Your task to perform on an android device: Empty the shopping cart on newegg.com. Search for "acer predator" on newegg.com, select the first entry, add it to the cart, then select checkout. Image 0: 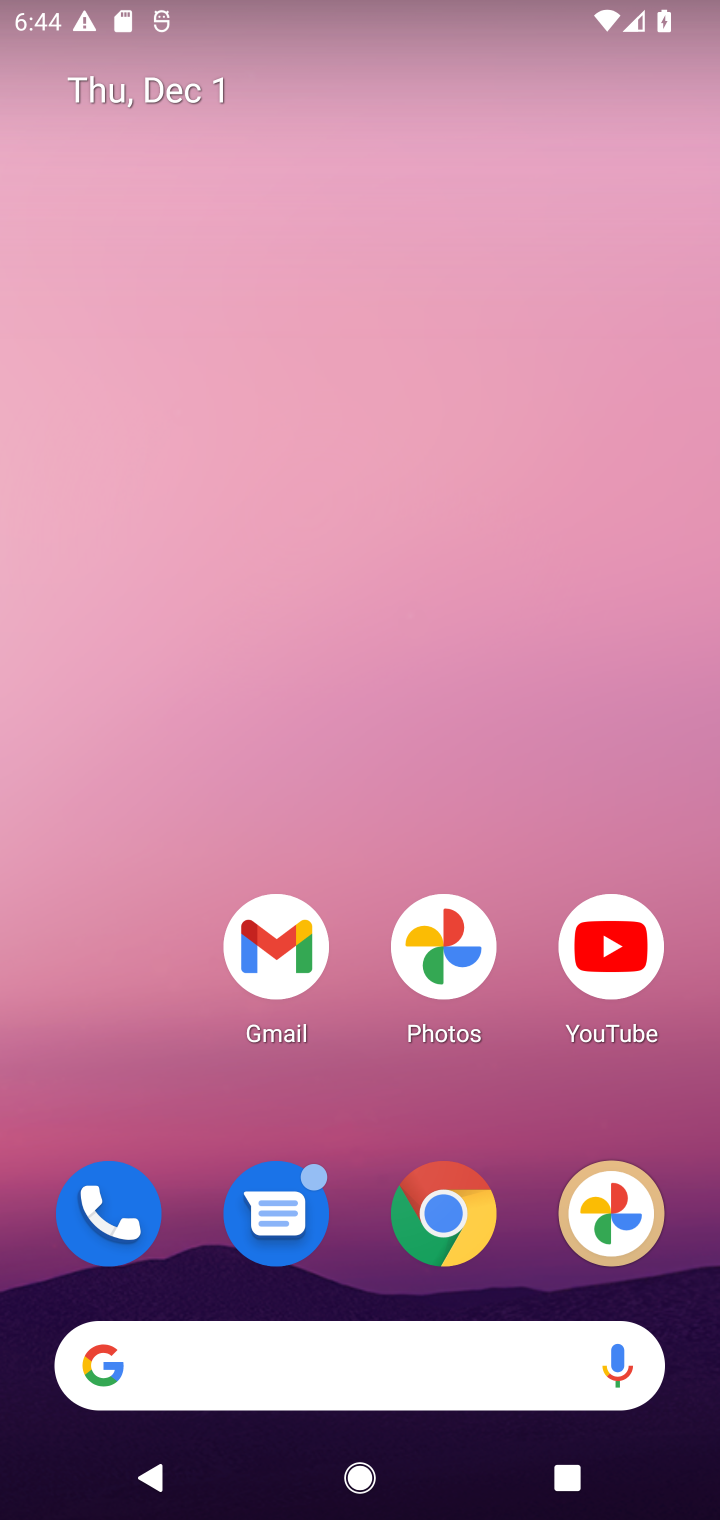
Step 0: click (368, 1366)
Your task to perform on an android device: Empty the shopping cart on newegg.com. Search for "acer predator" on newegg.com, select the first entry, add it to the cart, then select checkout. Image 1: 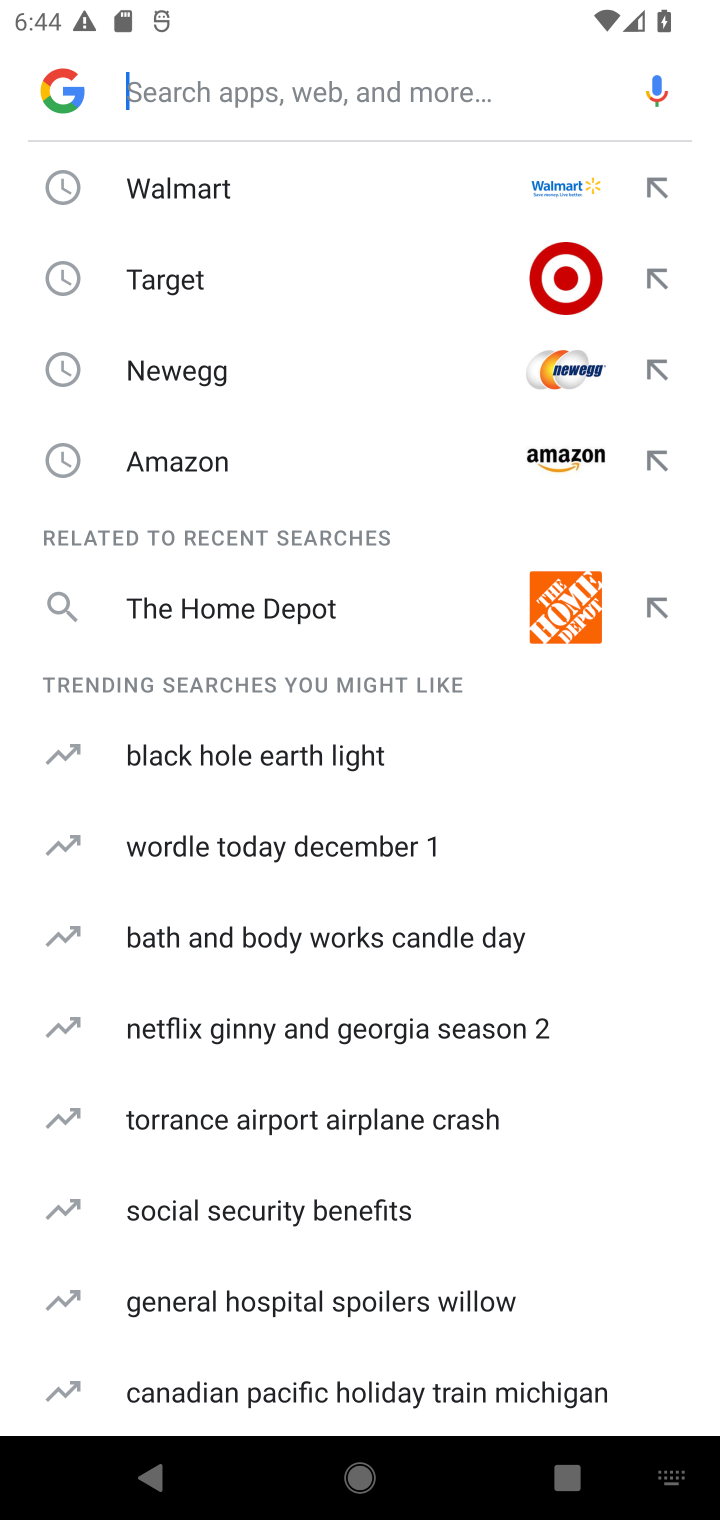
Step 1: click (184, 402)
Your task to perform on an android device: Empty the shopping cart on newegg.com. Search for "acer predator" on newegg.com, select the first entry, add it to the cart, then select checkout. Image 2: 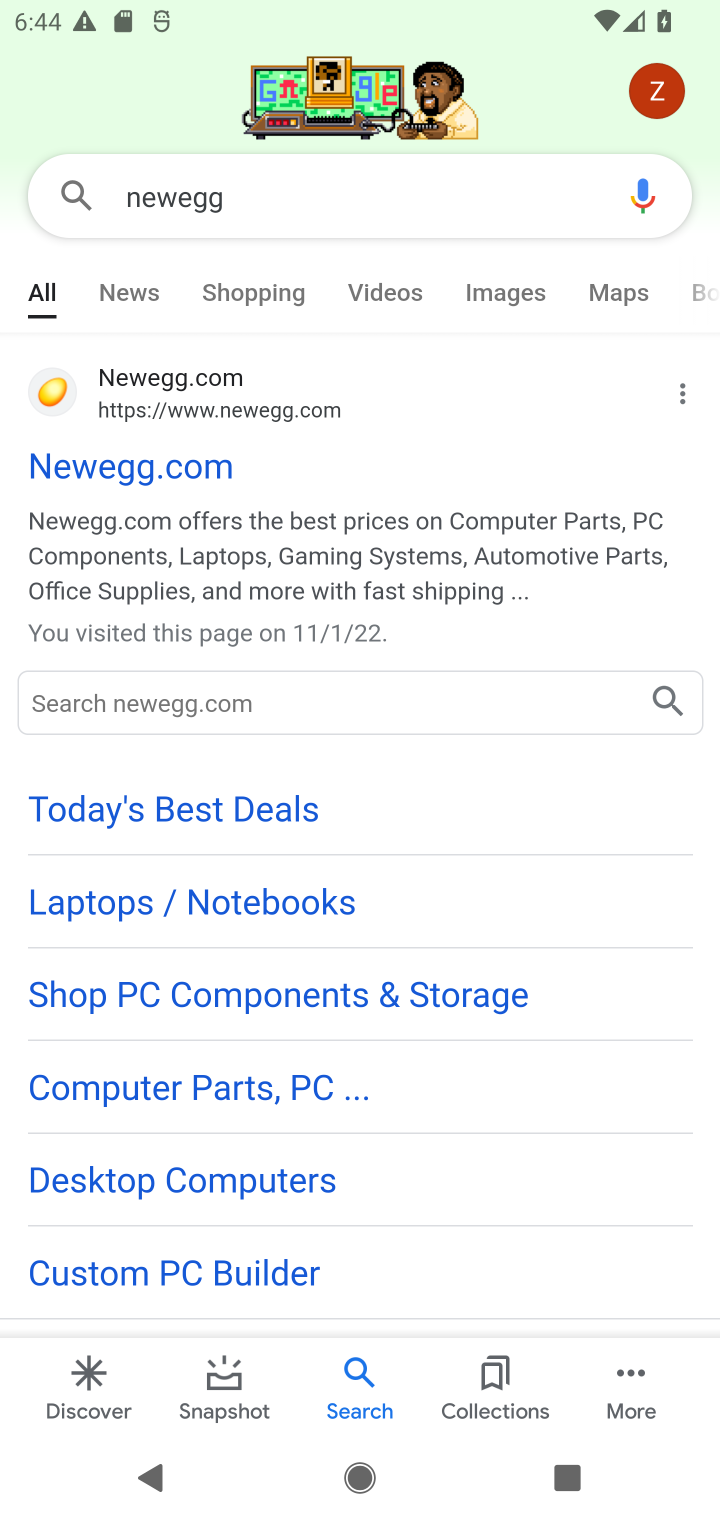
Step 2: click (163, 453)
Your task to perform on an android device: Empty the shopping cart on newegg.com. Search for "acer predator" on newegg.com, select the first entry, add it to the cart, then select checkout. Image 3: 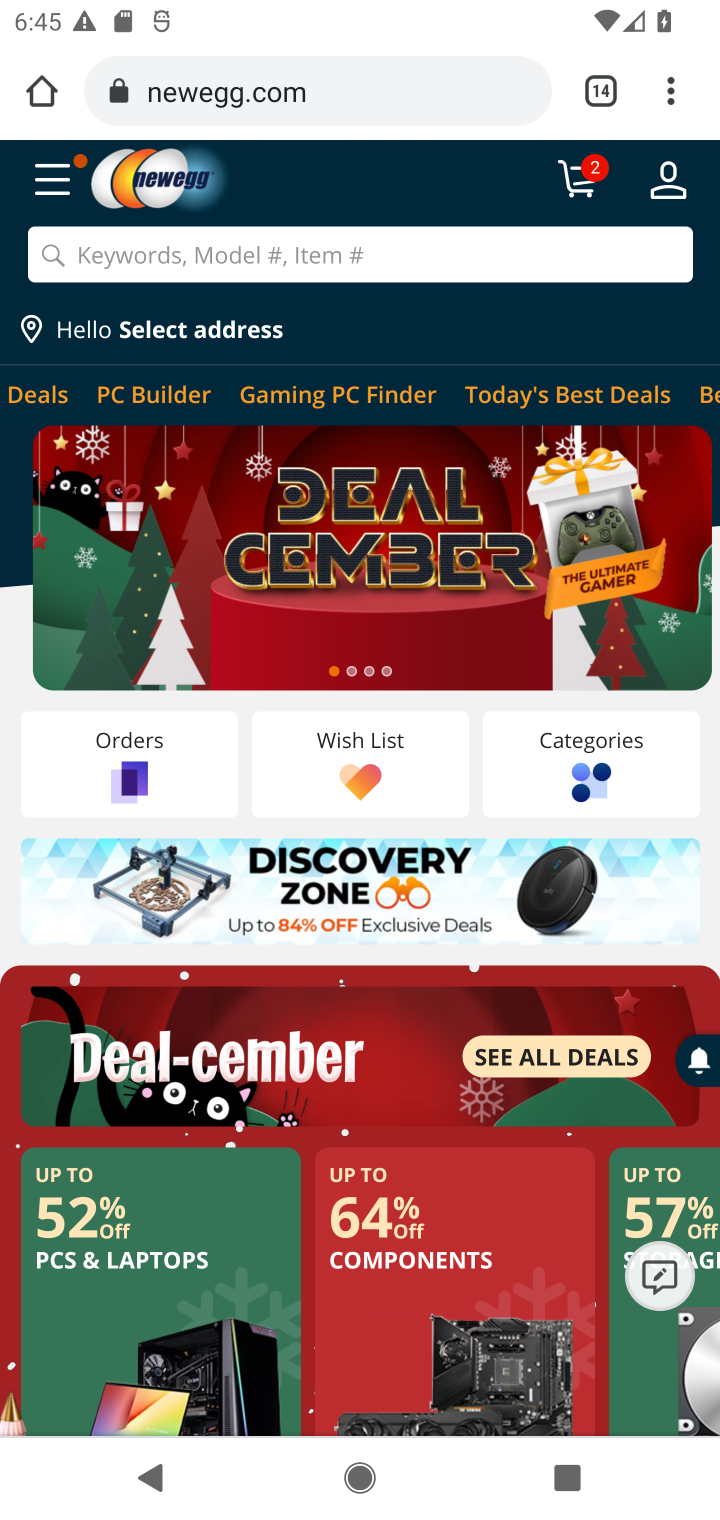
Step 3: click (307, 237)
Your task to perform on an android device: Empty the shopping cart on newegg.com. Search for "acer predator" on newegg.com, select the first entry, add it to the cart, then select checkout. Image 4: 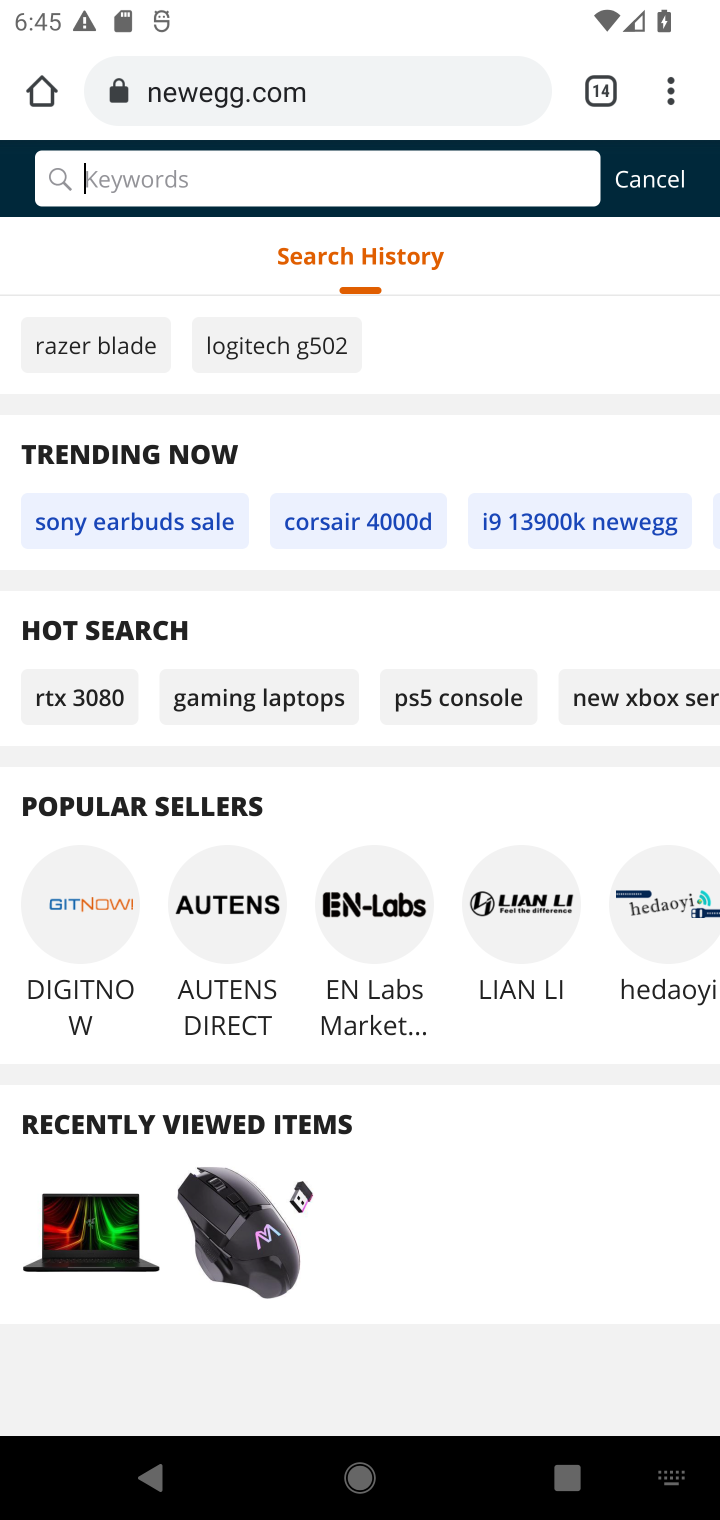
Step 4: type "acer predator"
Your task to perform on an android device: Empty the shopping cart on newegg.com. Search for "acer predator" on newegg.com, select the first entry, add it to the cart, then select checkout. Image 5: 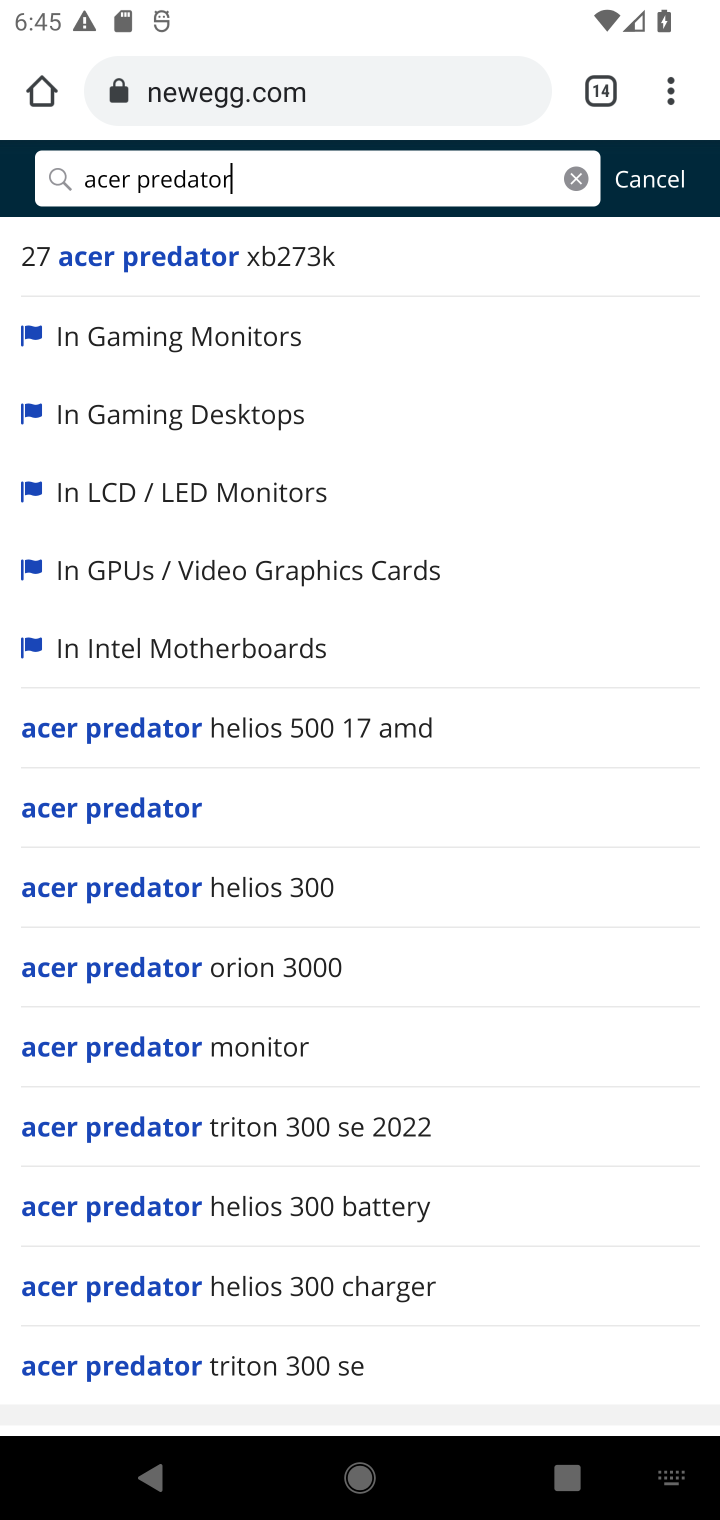
Step 5: click (278, 703)
Your task to perform on an android device: Empty the shopping cart on newegg.com. Search for "acer predator" on newegg.com, select the first entry, add it to the cart, then select checkout. Image 6: 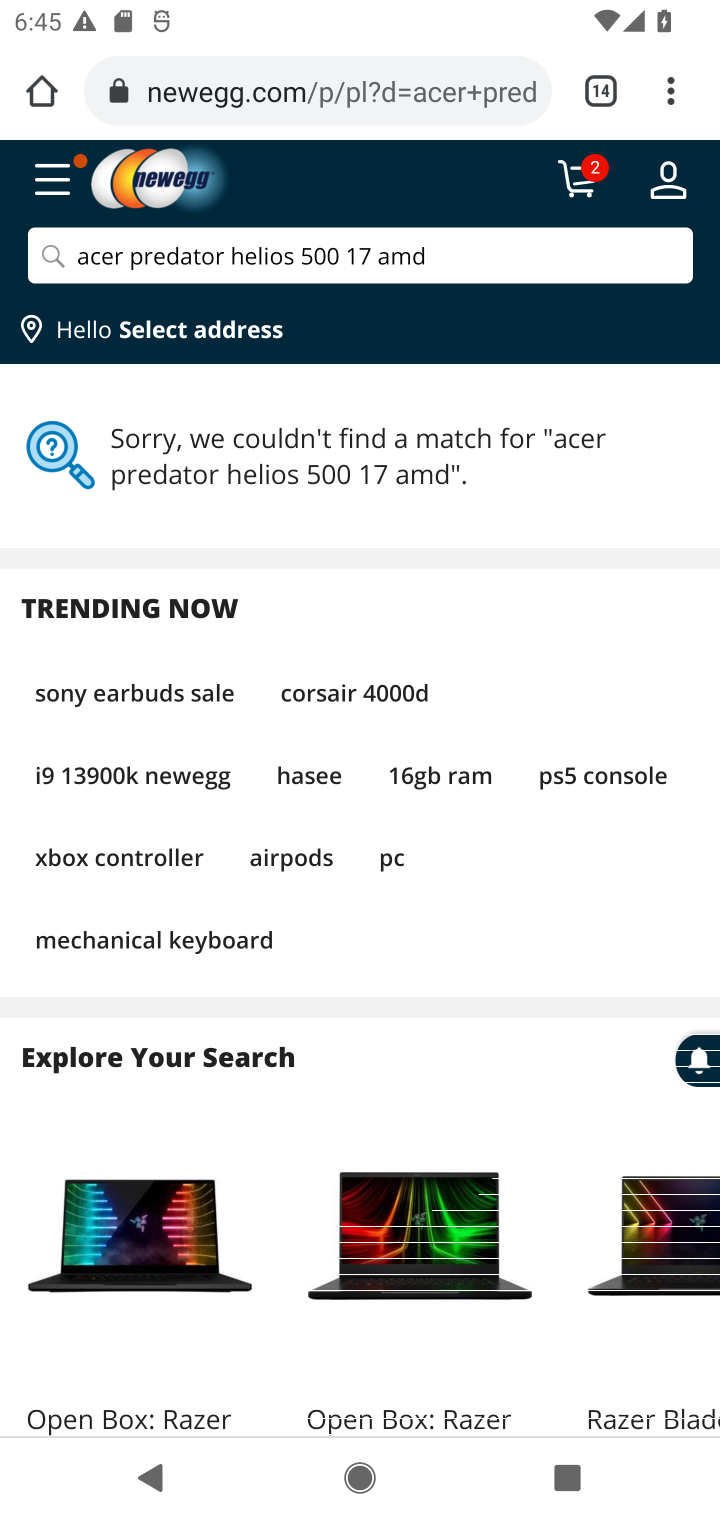
Step 6: task complete